Your task to perform on an android device: turn off priority inbox in the gmail app Image 0: 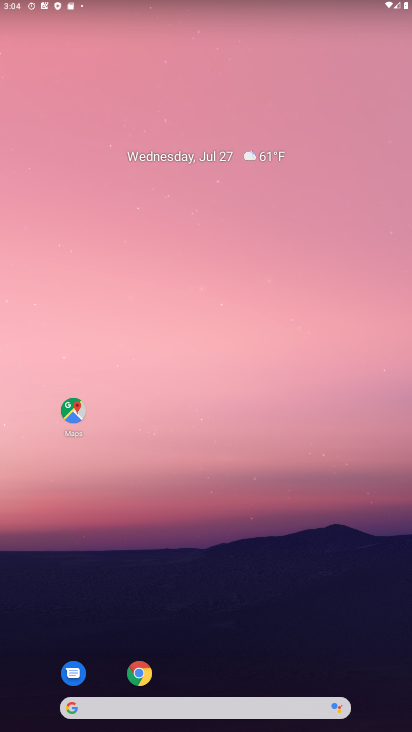
Step 0: drag from (120, 442) to (222, 95)
Your task to perform on an android device: turn off priority inbox in the gmail app Image 1: 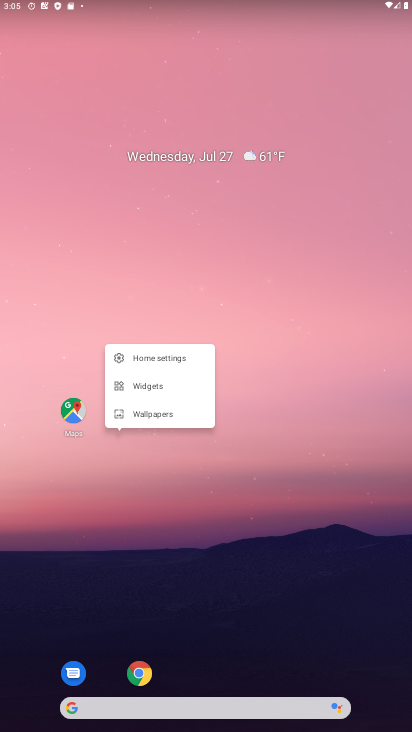
Step 1: drag from (39, 673) to (186, 173)
Your task to perform on an android device: turn off priority inbox in the gmail app Image 2: 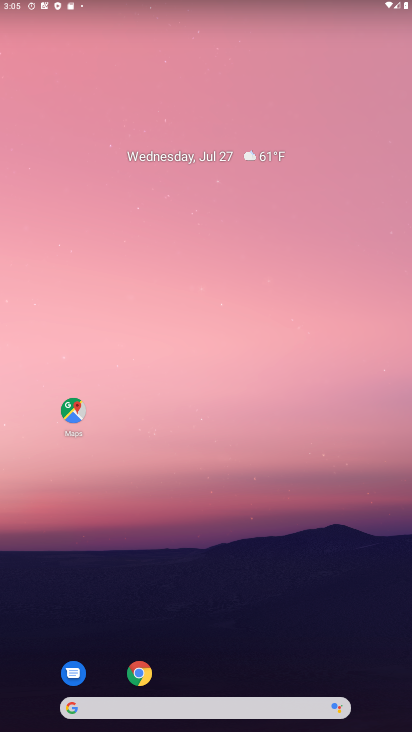
Step 2: drag from (23, 693) to (243, 169)
Your task to perform on an android device: turn off priority inbox in the gmail app Image 3: 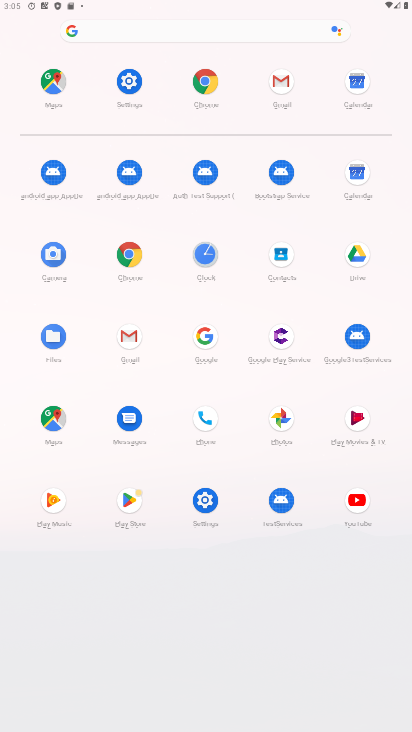
Step 3: click (129, 338)
Your task to perform on an android device: turn off priority inbox in the gmail app Image 4: 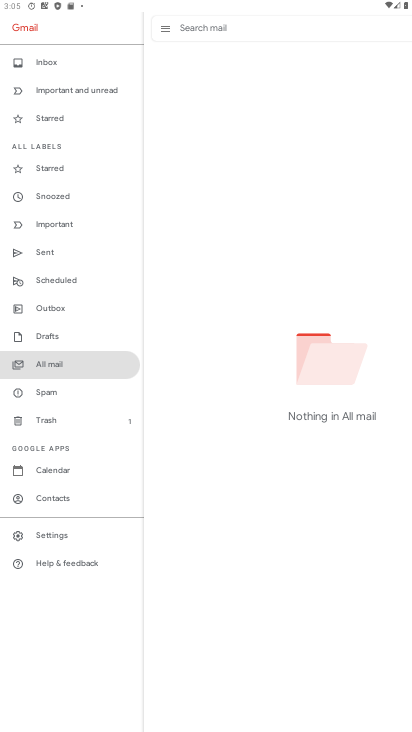
Step 4: click (58, 54)
Your task to perform on an android device: turn off priority inbox in the gmail app Image 5: 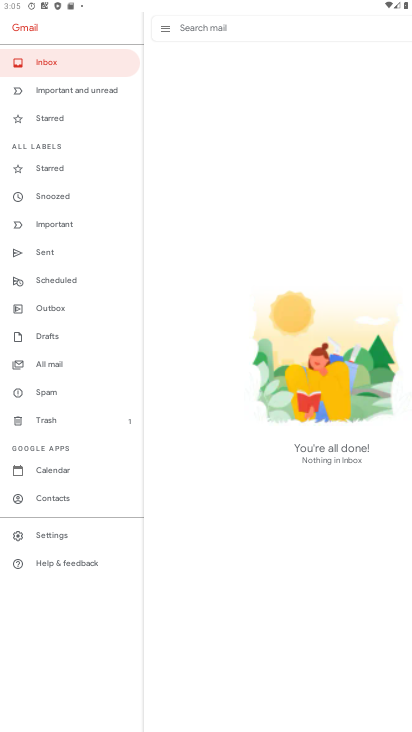
Step 5: click (38, 538)
Your task to perform on an android device: turn off priority inbox in the gmail app Image 6: 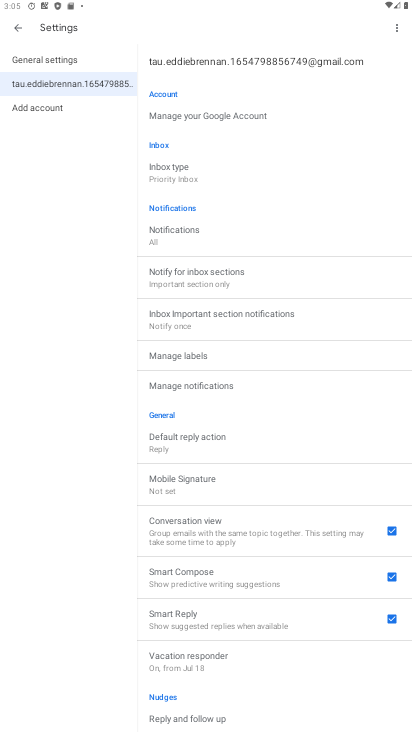
Step 6: task complete